Your task to perform on an android device: change the clock style Image 0: 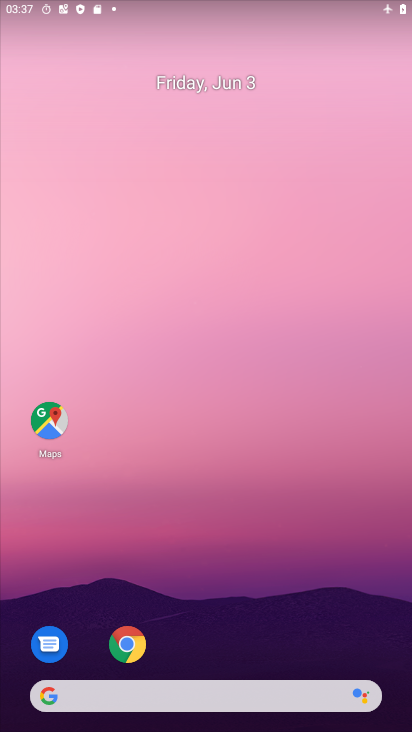
Step 0: drag from (228, 640) to (281, 152)
Your task to perform on an android device: change the clock style Image 1: 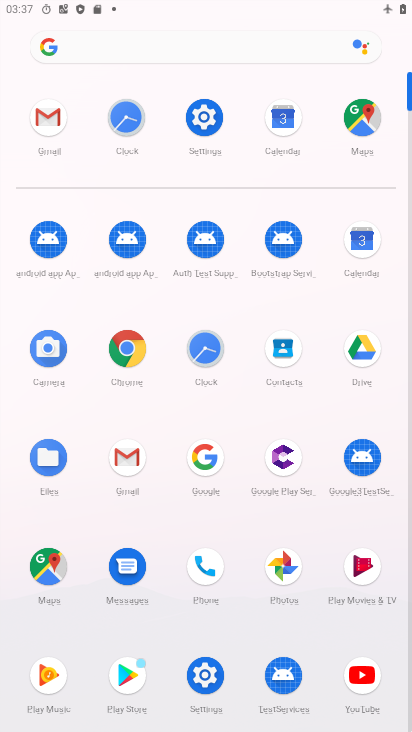
Step 1: click (130, 105)
Your task to perform on an android device: change the clock style Image 2: 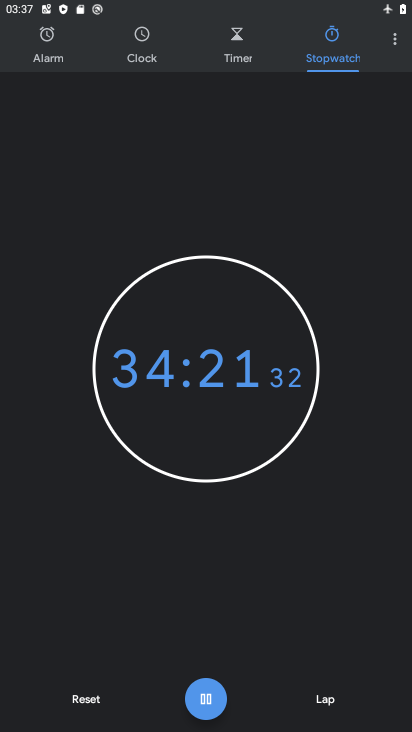
Step 2: click (384, 34)
Your task to perform on an android device: change the clock style Image 3: 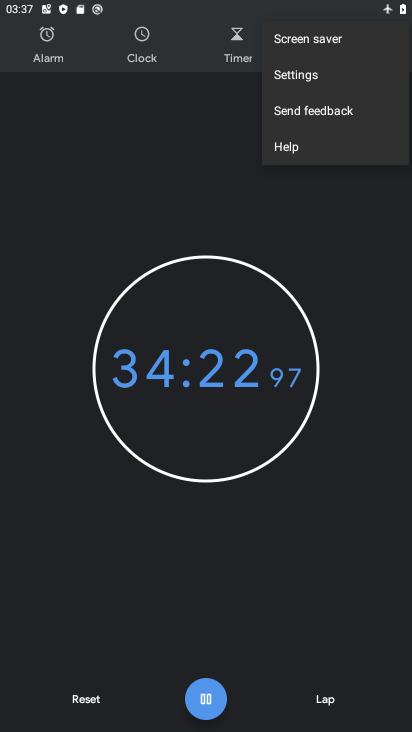
Step 3: click (345, 74)
Your task to perform on an android device: change the clock style Image 4: 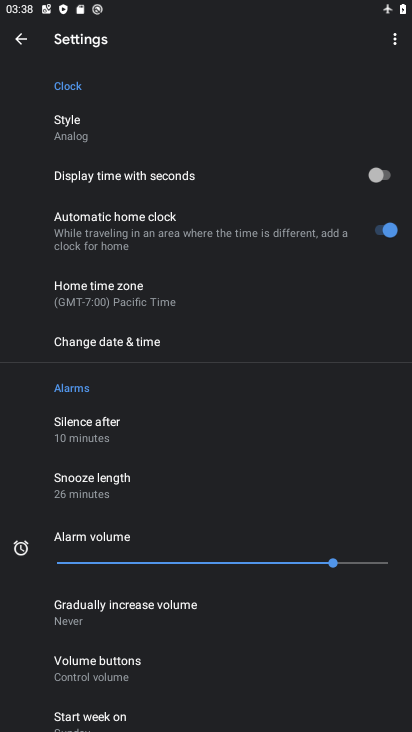
Step 4: click (124, 137)
Your task to perform on an android device: change the clock style Image 5: 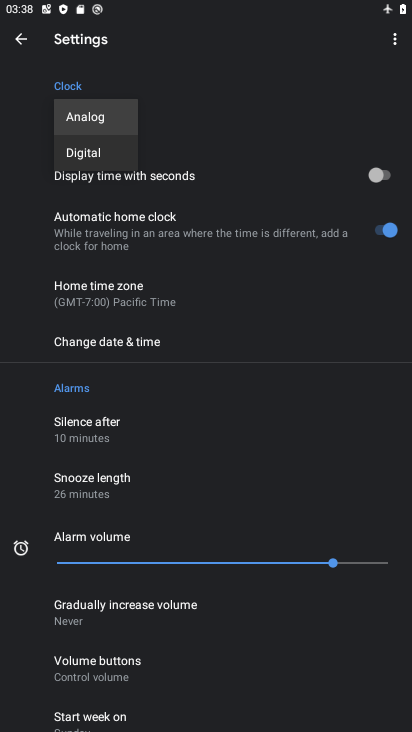
Step 5: click (119, 141)
Your task to perform on an android device: change the clock style Image 6: 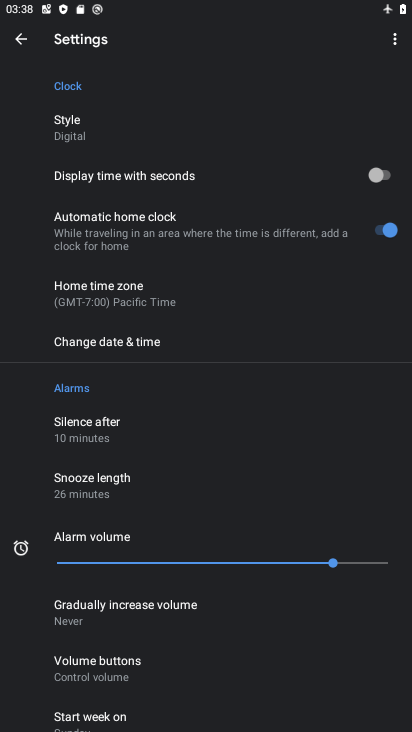
Step 6: task complete